Your task to perform on an android device: turn notification dots on Image 0: 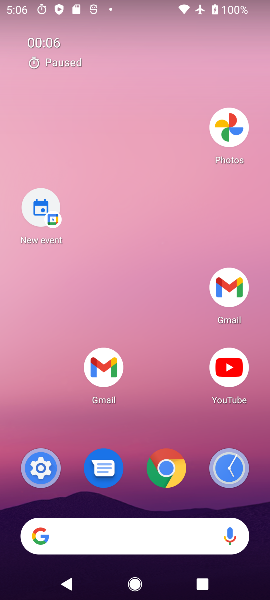
Step 0: drag from (176, 522) to (147, 104)
Your task to perform on an android device: turn notification dots on Image 1: 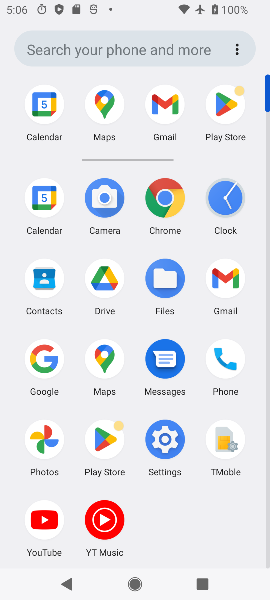
Step 1: click (161, 432)
Your task to perform on an android device: turn notification dots on Image 2: 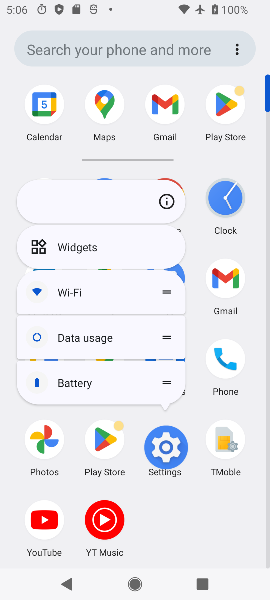
Step 2: click (162, 440)
Your task to perform on an android device: turn notification dots on Image 3: 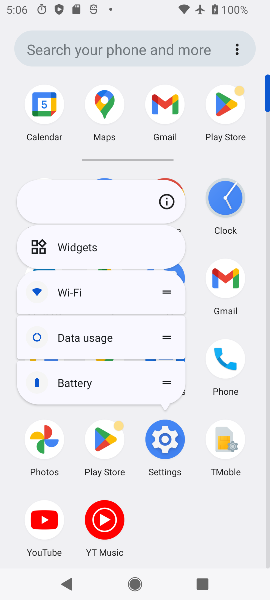
Step 3: click (163, 443)
Your task to perform on an android device: turn notification dots on Image 4: 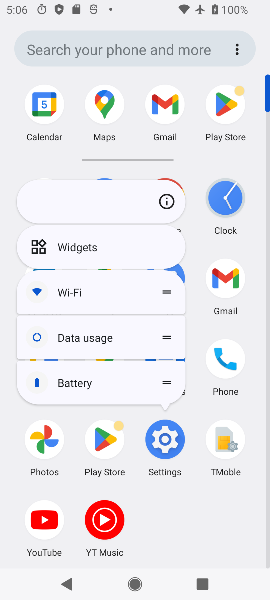
Step 4: click (162, 443)
Your task to perform on an android device: turn notification dots on Image 5: 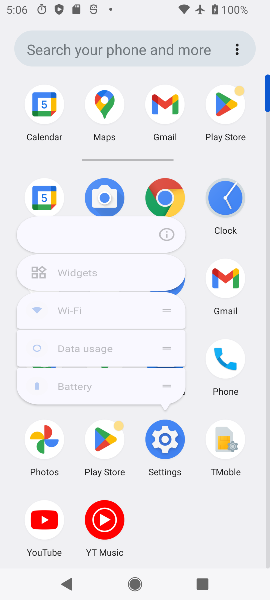
Step 5: click (162, 443)
Your task to perform on an android device: turn notification dots on Image 6: 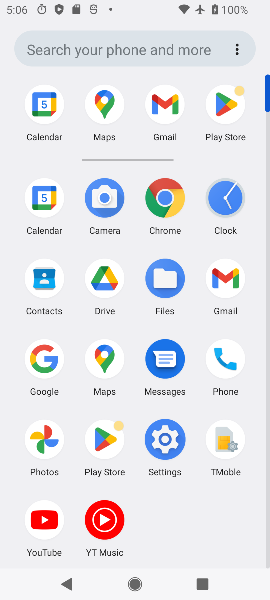
Step 6: click (163, 443)
Your task to perform on an android device: turn notification dots on Image 7: 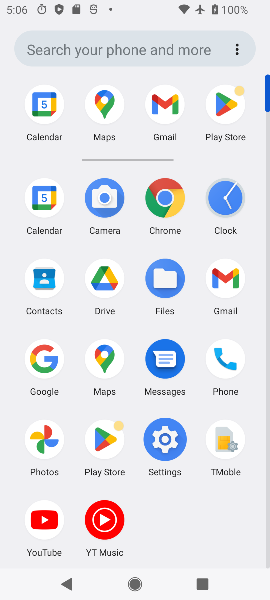
Step 7: click (163, 443)
Your task to perform on an android device: turn notification dots on Image 8: 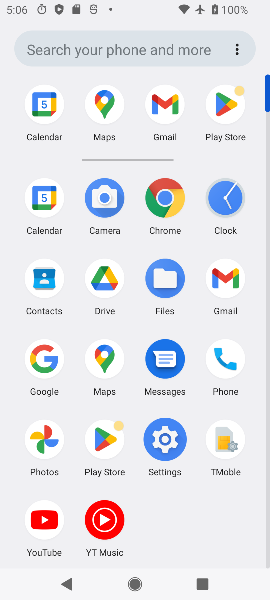
Step 8: click (163, 443)
Your task to perform on an android device: turn notification dots on Image 9: 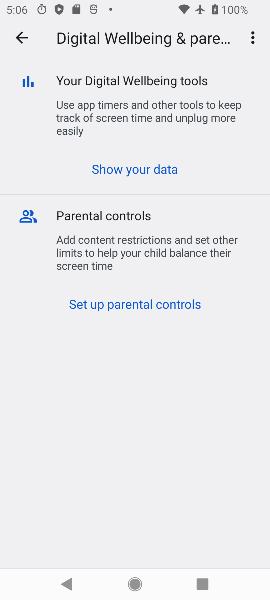
Step 9: press back button
Your task to perform on an android device: turn notification dots on Image 10: 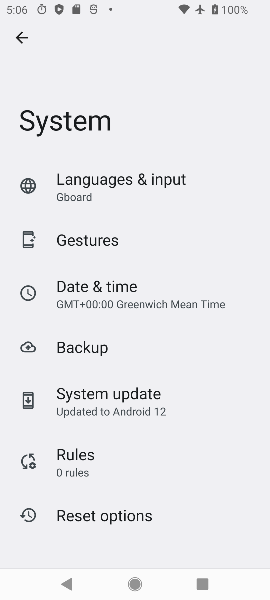
Step 10: click (11, 31)
Your task to perform on an android device: turn notification dots on Image 11: 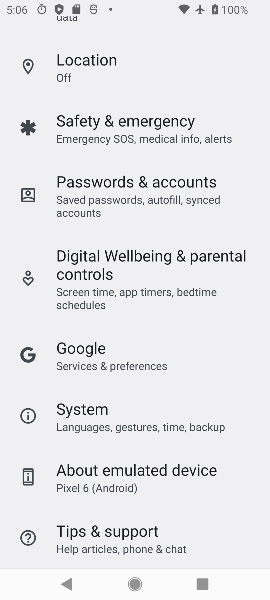
Step 11: press home button
Your task to perform on an android device: turn notification dots on Image 12: 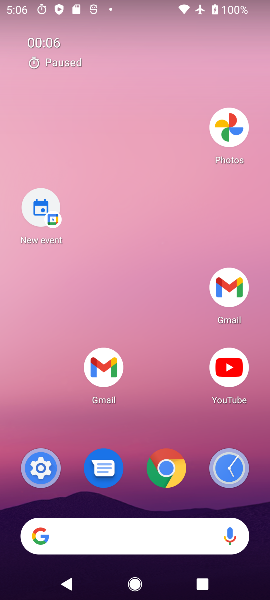
Step 12: drag from (161, 503) to (108, 172)
Your task to perform on an android device: turn notification dots on Image 13: 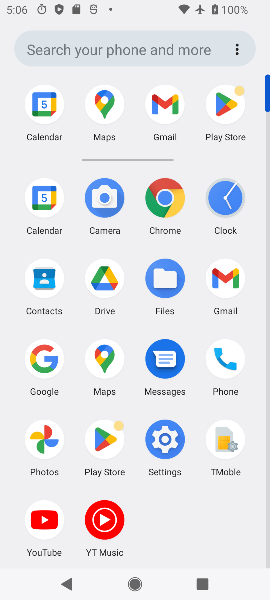
Step 13: click (166, 444)
Your task to perform on an android device: turn notification dots on Image 14: 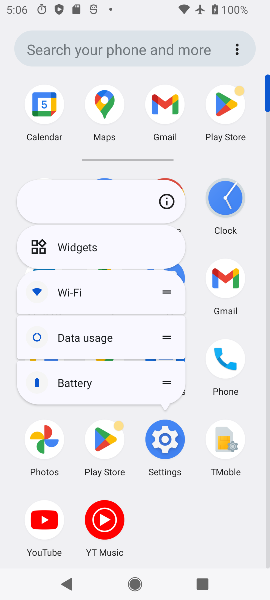
Step 14: click (166, 444)
Your task to perform on an android device: turn notification dots on Image 15: 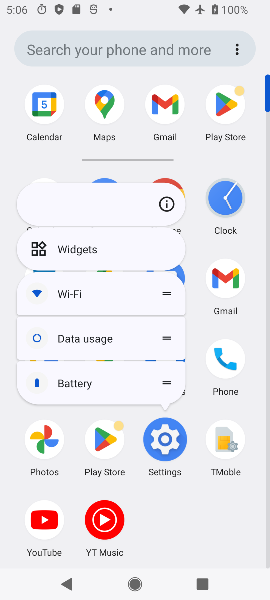
Step 15: click (166, 444)
Your task to perform on an android device: turn notification dots on Image 16: 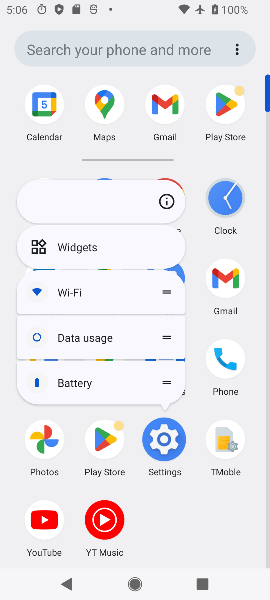
Step 16: click (165, 440)
Your task to perform on an android device: turn notification dots on Image 17: 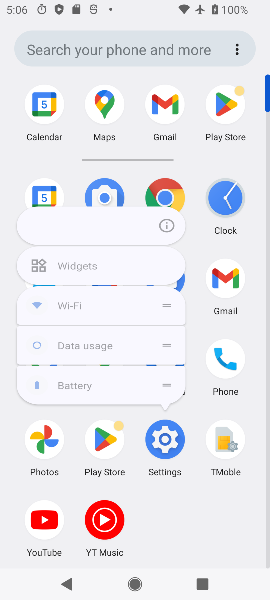
Step 17: click (165, 435)
Your task to perform on an android device: turn notification dots on Image 18: 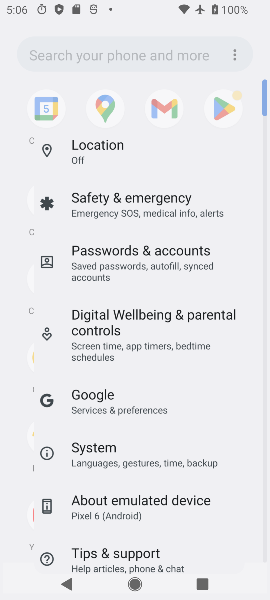
Step 18: click (165, 435)
Your task to perform on an android device: turn notification dots on Image 19: 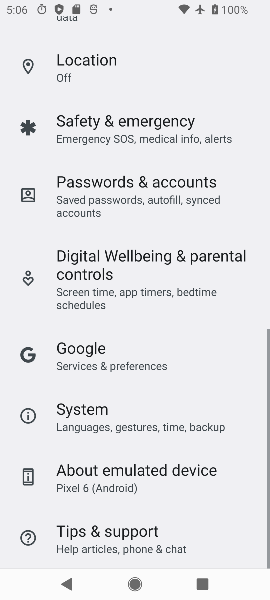
Step 19: click (165, 435)
Your task to perform on an android device: turn notification dots on Image 20: 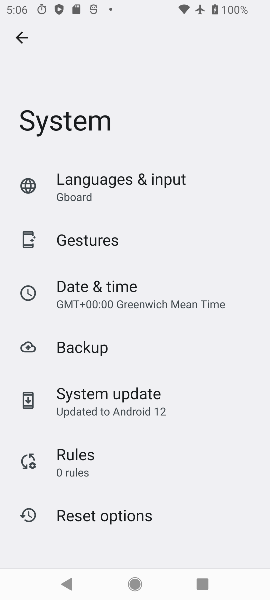
Step 20: click (12, 30)
Your task to perform on an android device: turn notification dots on Image 21: 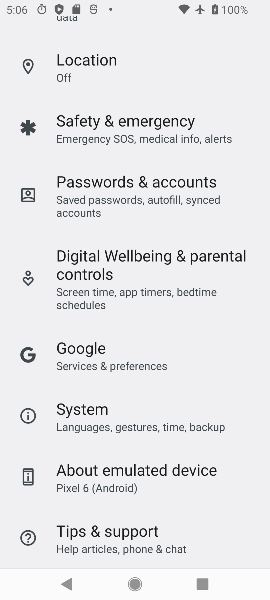
Step 21: drag from (129, 441) to (116, 142)
Your task to perform on an android device: turn notification dots on Image 22: 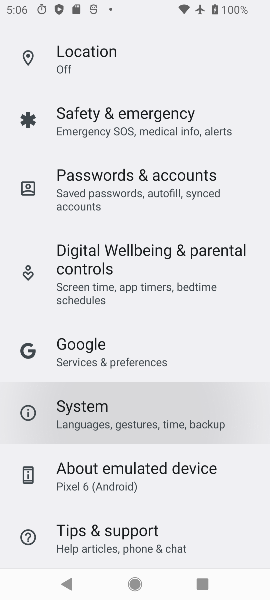
Step 22: drag from (103, 349) to (103, 139)
Your task to perform on an android device: turn notification dots on Image 23: 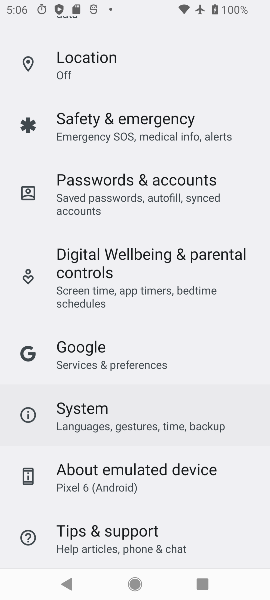
Step 23: drag from (103, 322) to (115, 141)
Your task to perform on an android device: turn notification dots on Image 24: 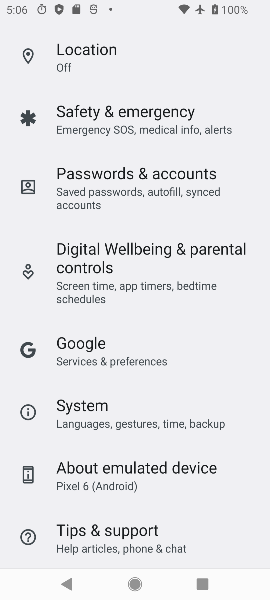
Step 24: drag from (119, 385) to (135, 197)
Your task to perform on an android device: turn notification dots on Image 25: 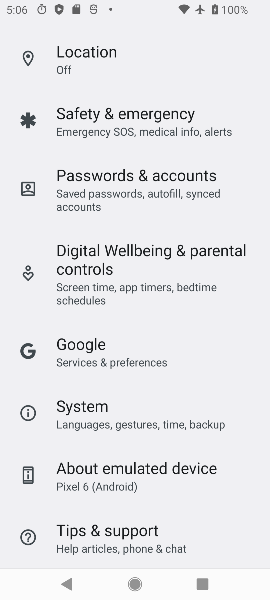
Step 25: drag from (127, 447) to (129, 213)
Your task to perform on an android device: turn notification dots on Image 26: 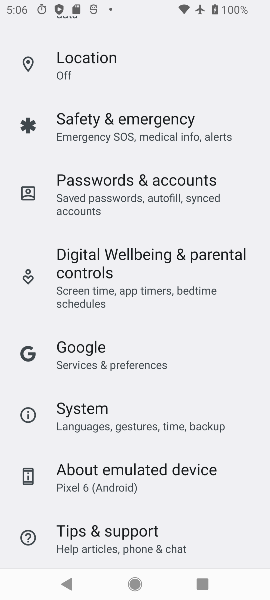
Step 26: drag from (141, 163) to (121, 407)
Your task to perform on an android device: turn notification dots on Image 27: 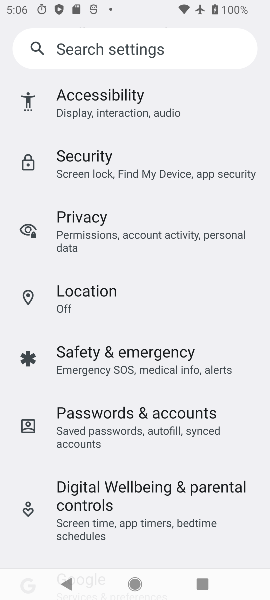
Step 27: drag from (76, 198) to (74, 387)
Your task to perform on an android device: turn notification dots on Image 28: 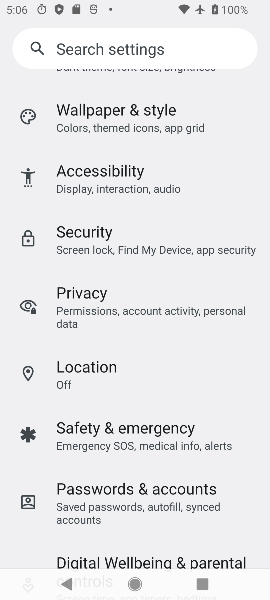
Step 28: drag from (101, 224) to (92, 397)
Your task to perform on an android device: turn notification dots on Image 29: 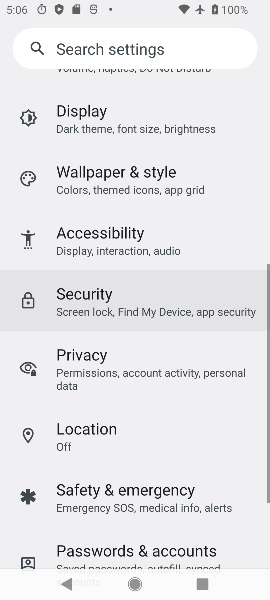
Step 29: drag from (82, 263) to (93, 389)
Your task to perform on an android device: turn notification dots on Image 30: 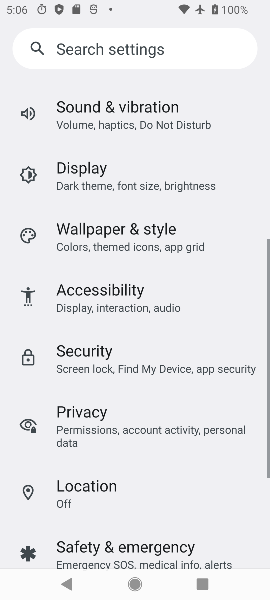
Step 30: drag from (125, 243) to (138, 399)
Your task to perform on an android device: turn notification dots on Image 31: 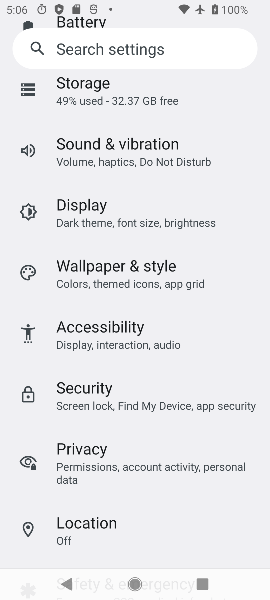
Step 31: drag from (101, 119) to (105, 431)
Your task to perform on an android device: turn notification dots on Image 32: 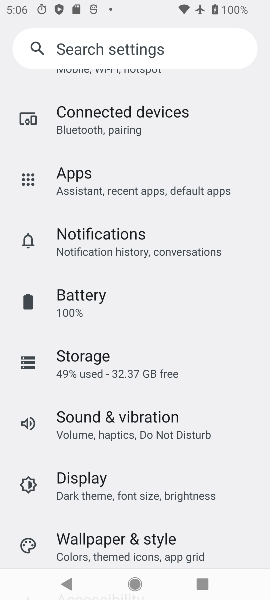
Step 32: click (91, 237)
Your task to perform on an android device: turn notification dots on Image 33: 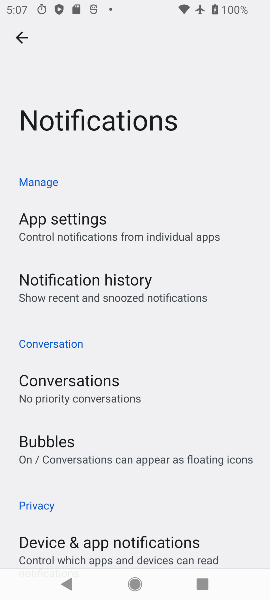
Step 33: drag from (118, 469) to (121, 219)
Your task to perform on an android device: turn notification dots on Image 34: 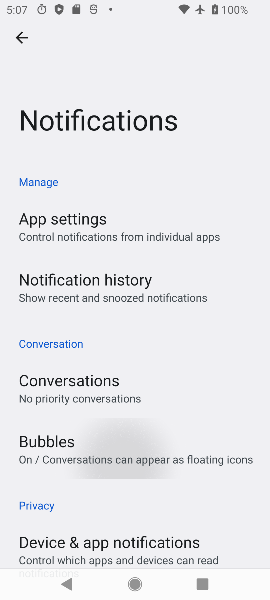
Step 34: click (118, 150)
Your task to perform on an android device: turn notification dots on Image 35: 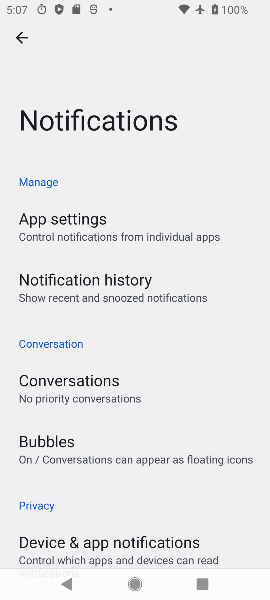
Step 35: task complete